Your task to perform on an android device: change the clock style Image 0: 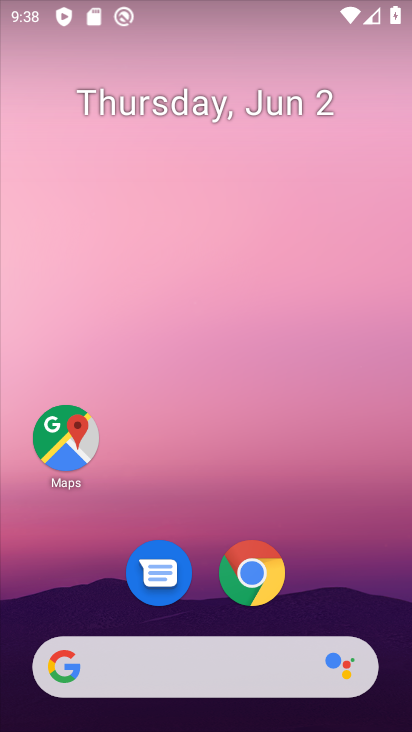
Step 0: drag from (336, 599) to (270, 125)
Your task to perform on an android device: change the clock style Image 1: 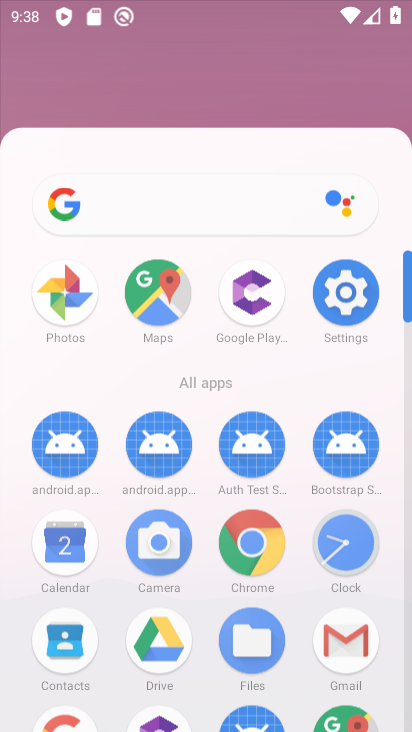
Step 1: click (270, 125)
Your task to perform on an android device: change the clock style Image 2: 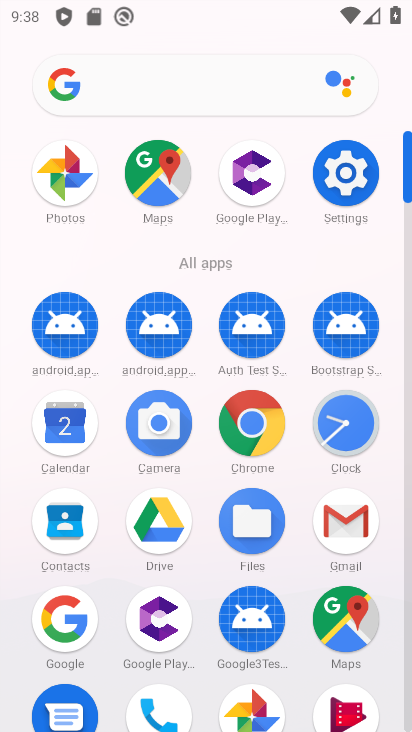
Step 2: click (338, 422)
Your task to perform on an android device: change the clock style Image 3: 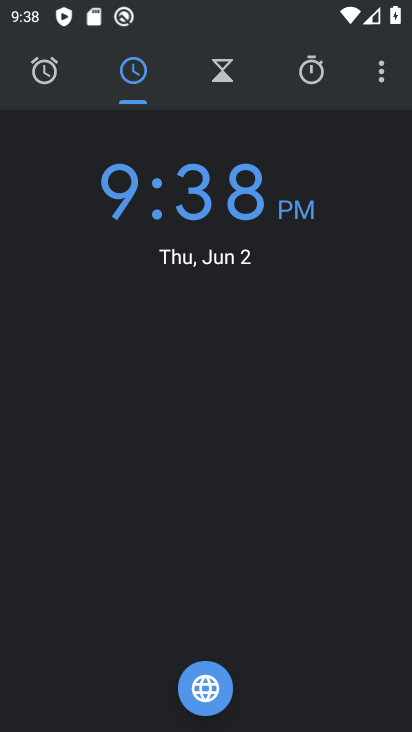
Step 3: click (383, 75)
Your task to perform on an android device: change the clock style Image 4: 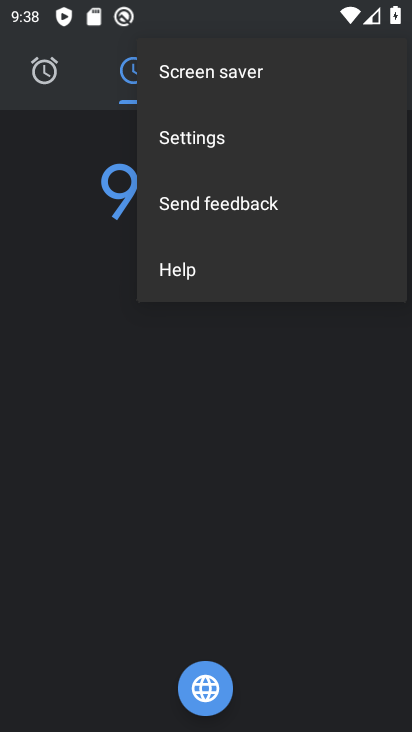
Step 4: click (204, 141)
Your task to perform on an android device: change the clock style Image 5: 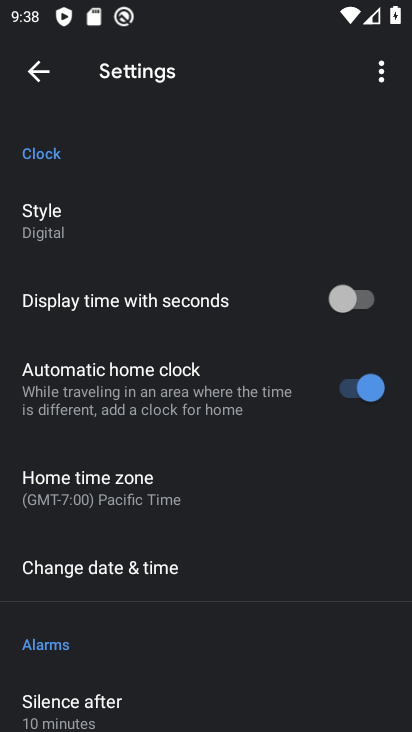
Step 5: click (47, 203)
Your task to perform on an android device: change the clock style Image 6: 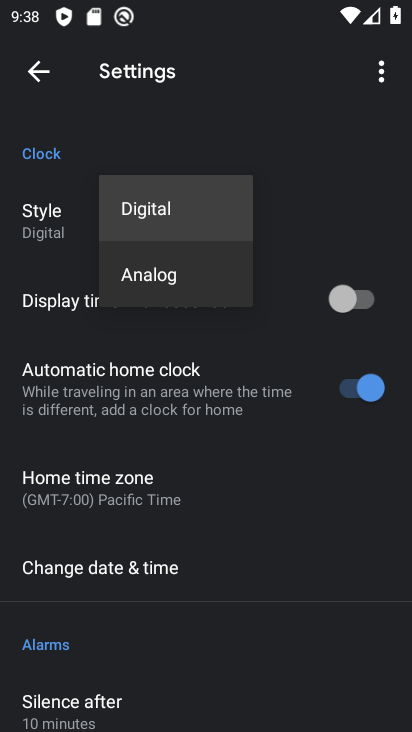
Step 6: click (166, 283)
Your task to perform on an android device: change the clock style Image 7: 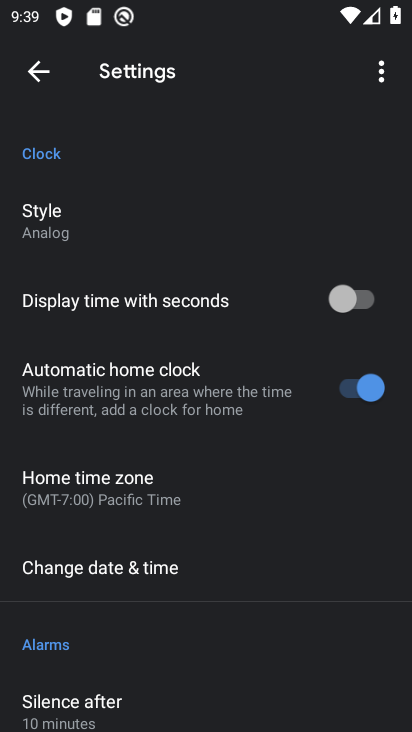
Step 7: task complete